Your task to perform on an android device: Open battery settings Image 0: 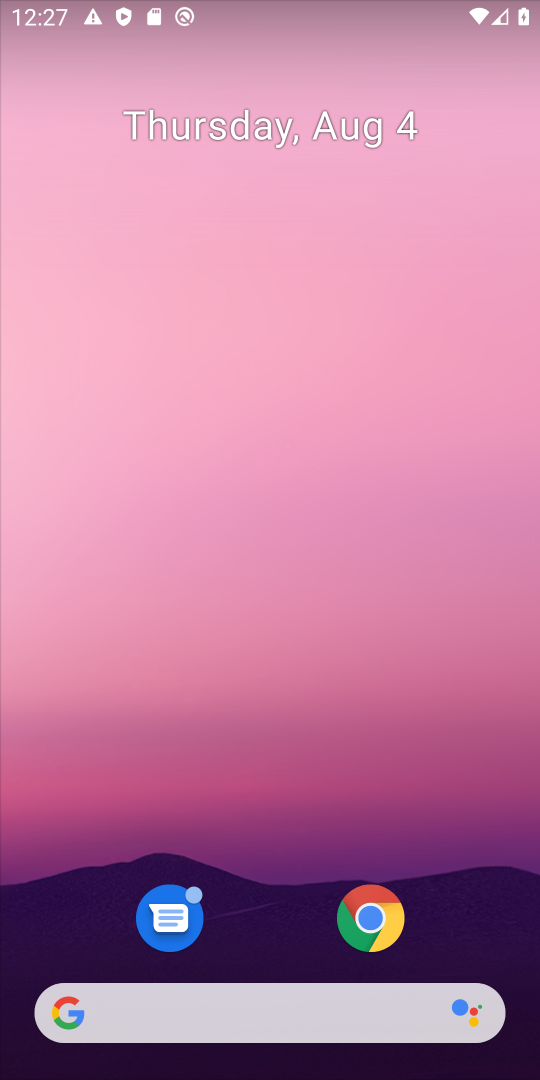
Step 0: drag from (293, 908) to (344, 128)
Your task to perform on an android device: Open battery settings Image 1: 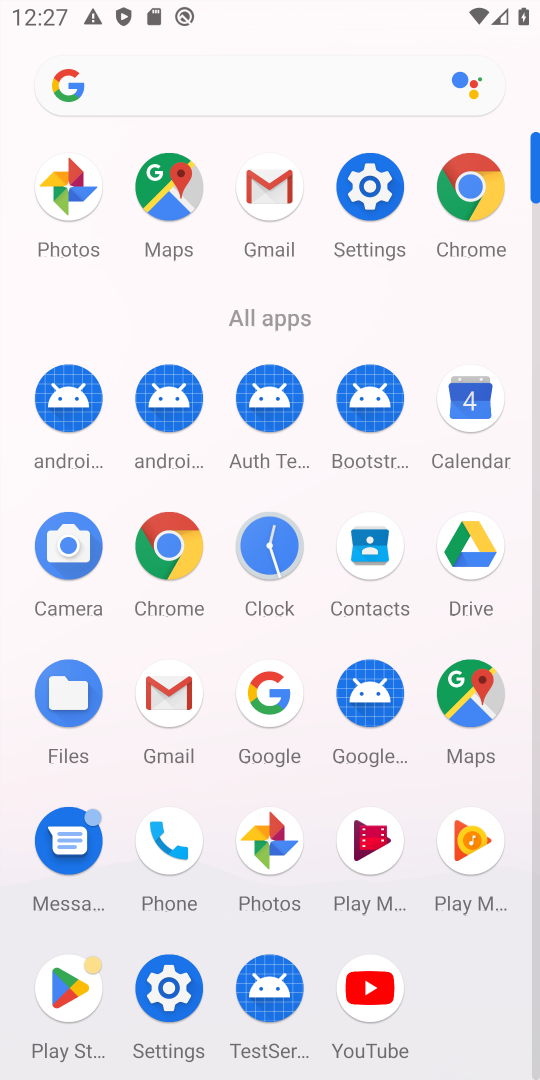
Step 1: click (371, 187)
Your task to perform on an android device: Open battery settings Image 2: 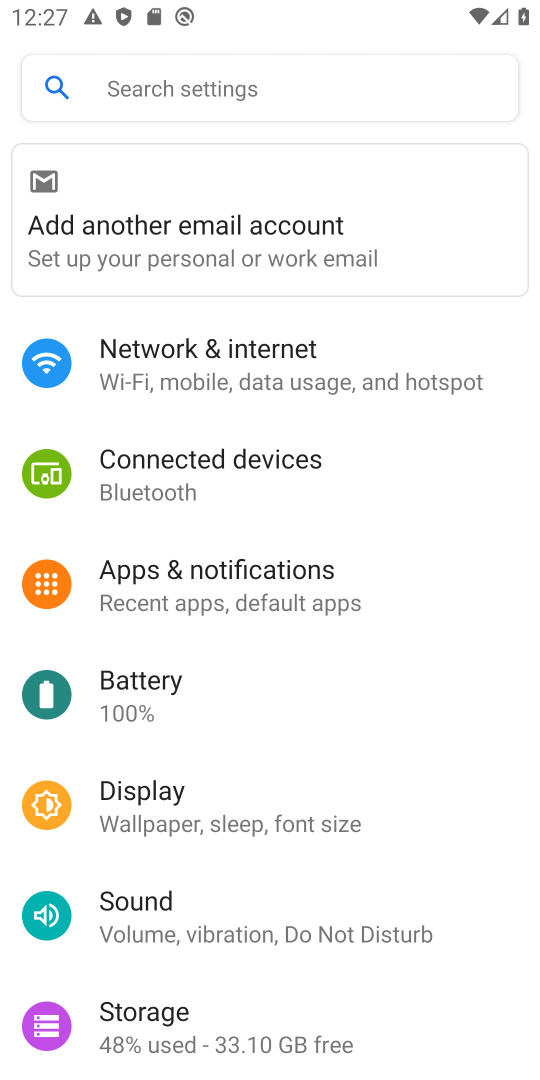
Step 2: click (152, 710)
Your task to perform on an android device: Open battery settings Image 3: 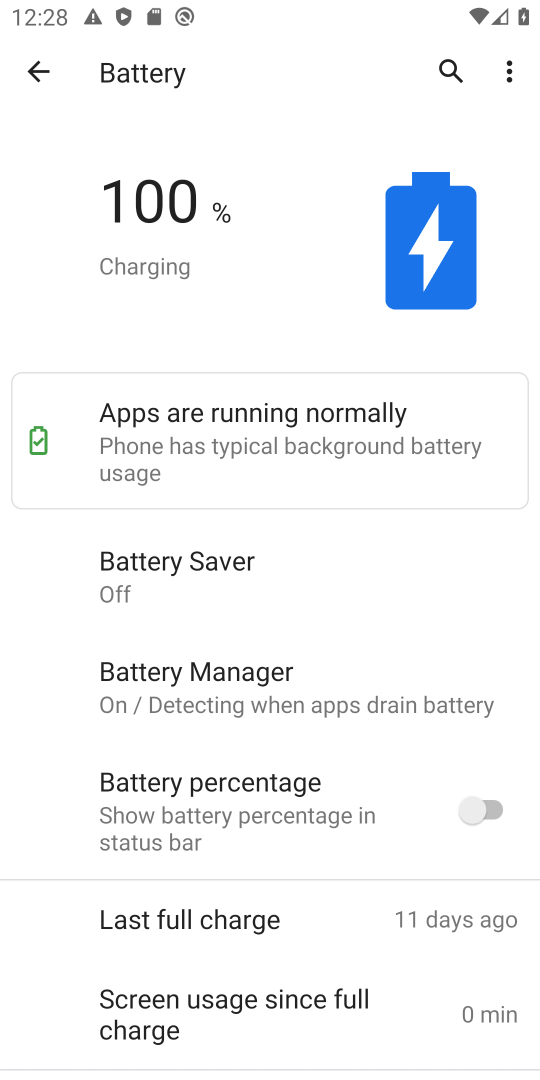
Step 3: task complete